Your task to perform on an android device: turn vacation reply on in the gmail app Image 0: 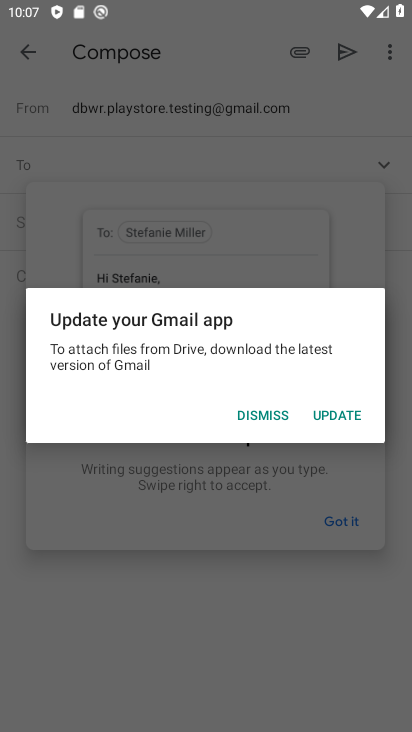
Step 0: press home button
Your task to perform on an android device: turn vacation reply on in the gmail app Image 1: 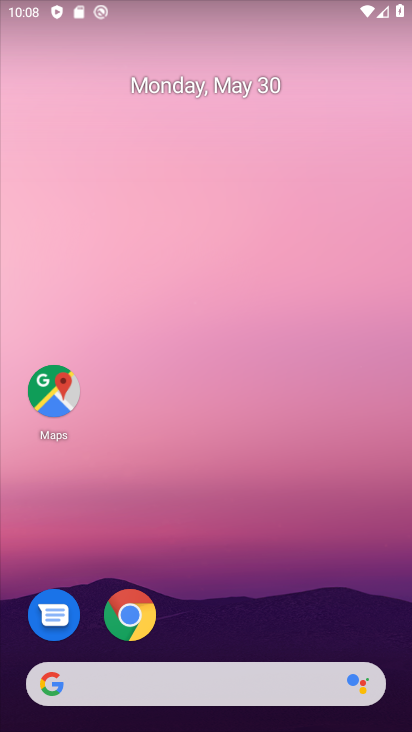
Step 1: drag from (230, 730) to (242, 126)
Your task to perform on an android device: turn vacation reply on in the gmail app Image 2: 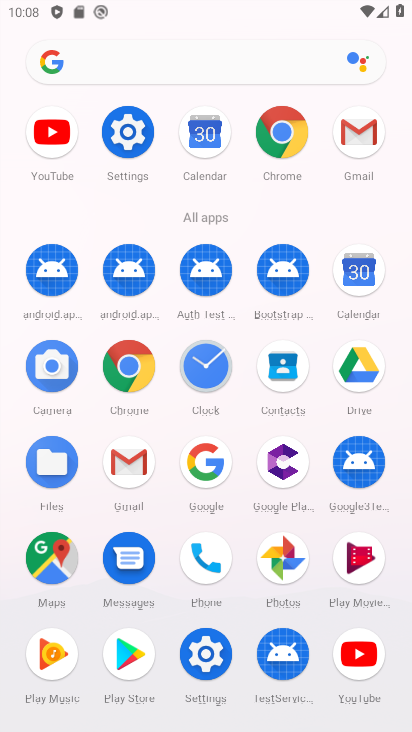
Step 2: click (135, 461)
Your task to perform on an android device: turn vacation reply on in the gmail app Image 3: 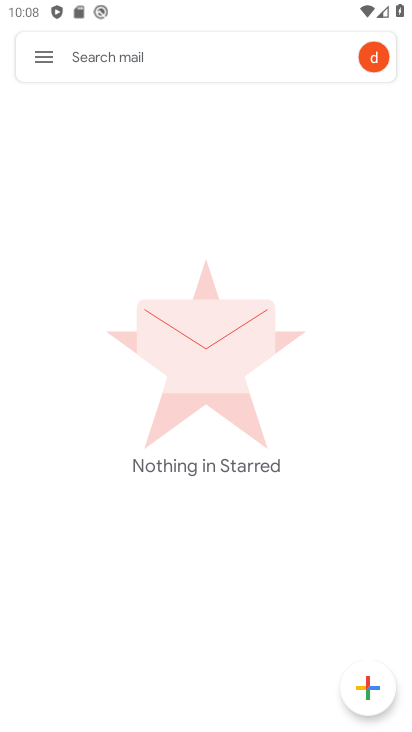
Step 3: click (44, 51)
Your task to perform on an android device: turn vacation reply on in the gmail app Image 4: 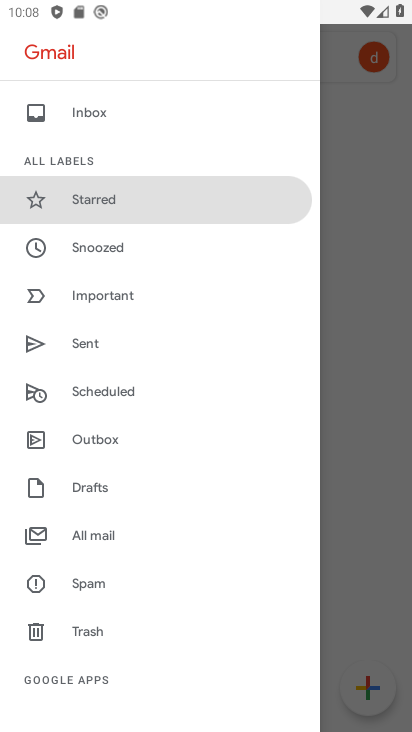
Step 4: drag from (108, 655) to (131, 273)
Your task to perform on an android device: turn vacation reply on in the gmail app Image 5: 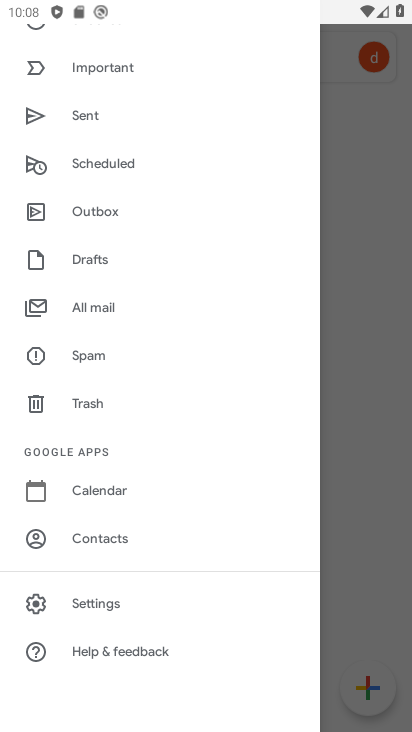
Step 5: click (107, 601)
Your task to perform on an android device: turn vacation reply on in the gmail app Image 6: 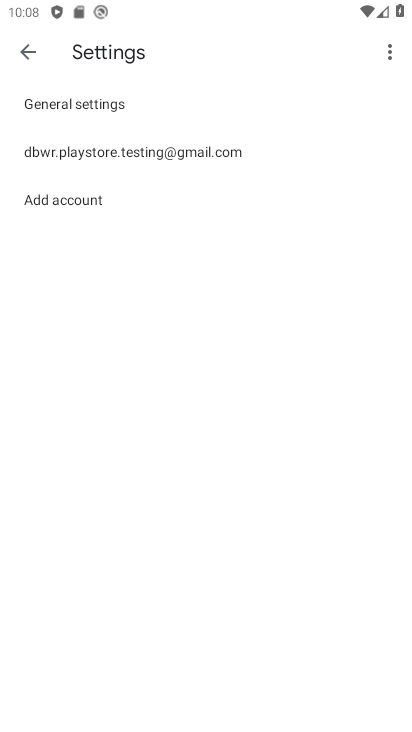
Step 6: click (150, 149)
Your task to perform on an android device: turn vacation reply on in the gmail app Image 7: 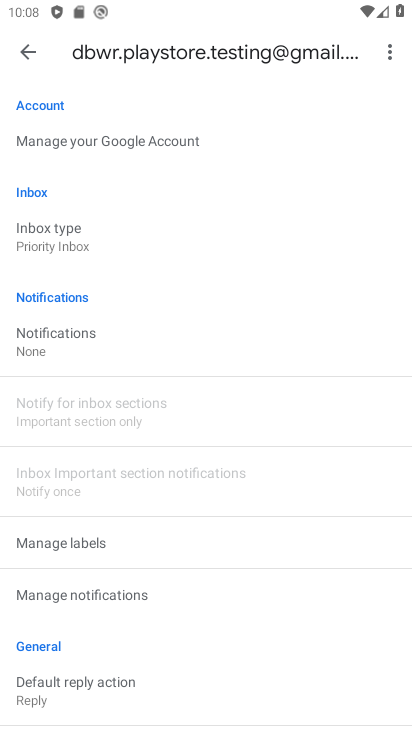
Step 7: drag from (129, 652) to (135, 243)
Your task to perform on an android device: turn vacation reply on in the gmail app Image 8: 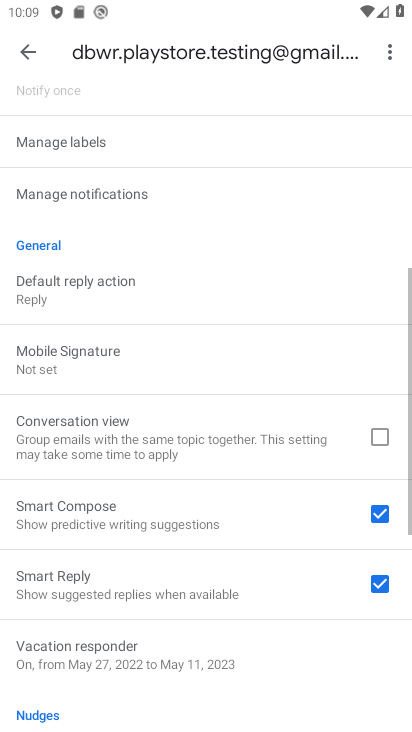
Step 8: click (135, 652)
Your task to perform on an android device: turn vacation reply on in the gmail app Image 9: 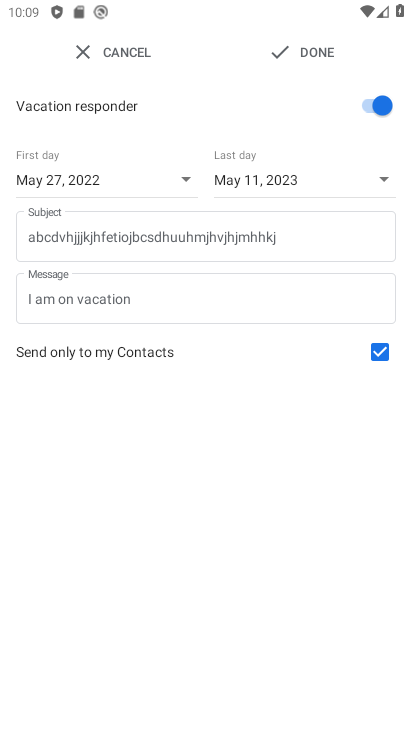
Step 9: task complete